Your task to perform on an android device: empty trash in the gmail app Image 0: 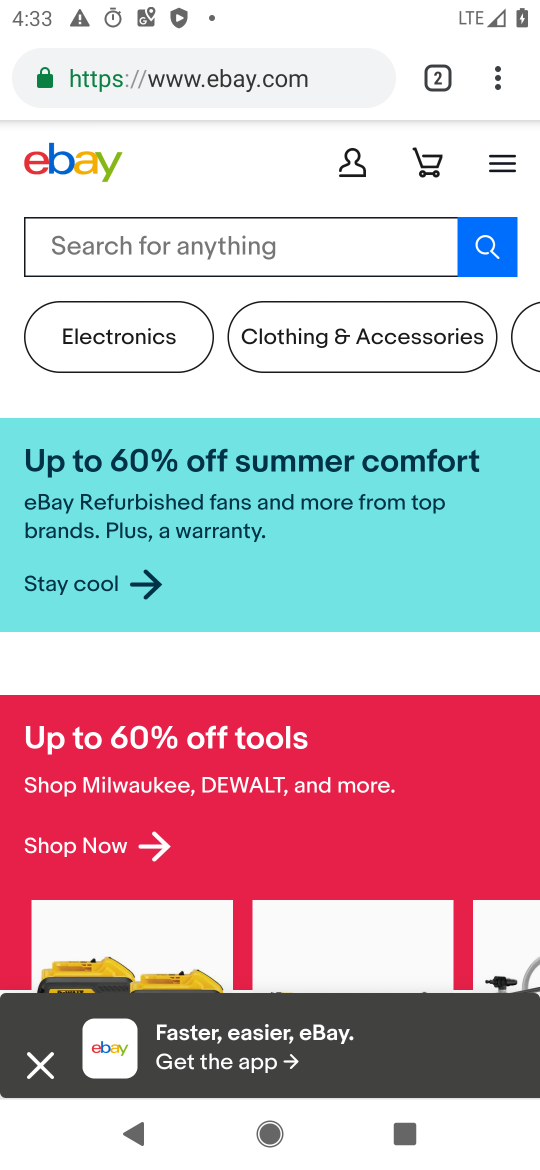
Step 0: press home button
Your task to perform on an android device: empty trash in the gmail app Image 1: 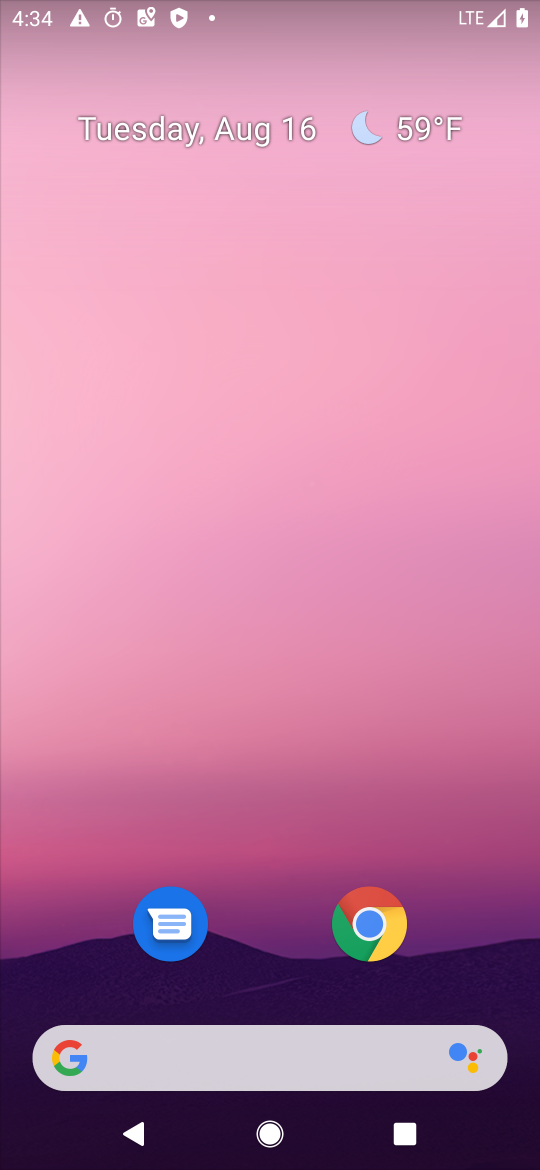
Step 1: drag from (284, 980) to (344, 23)
Your task to perform on an android device: empty trash in the gmail app Image 2: 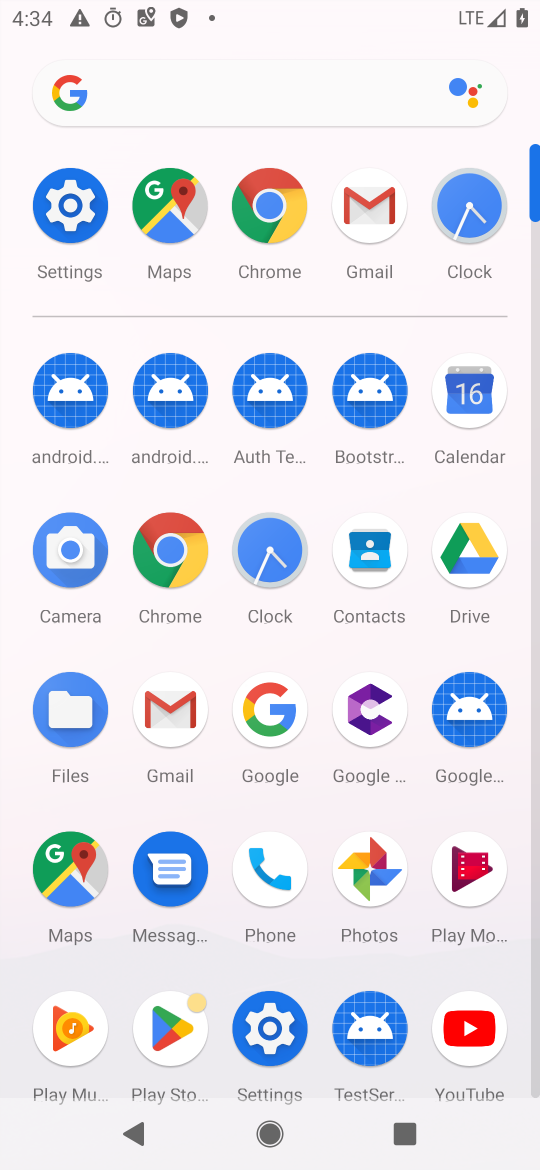
Step 2: click (398, 199)
Your task to perform on an android device: empty trash in the gmail app Image 3: 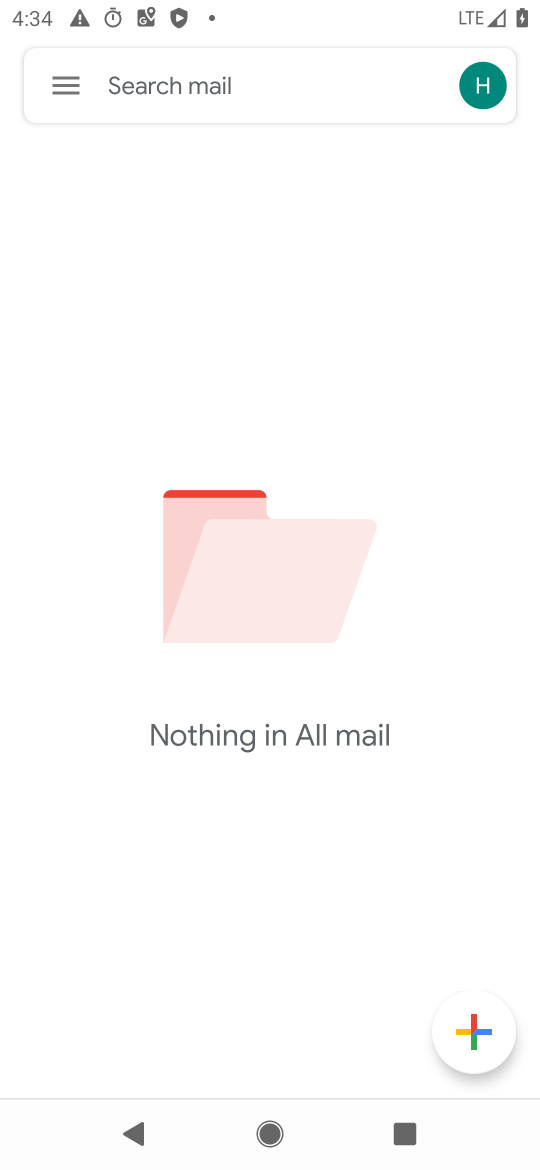
Step 3: click (67, 76)
Your task to perform on an android device: empty trash in the gmail app Image 4: 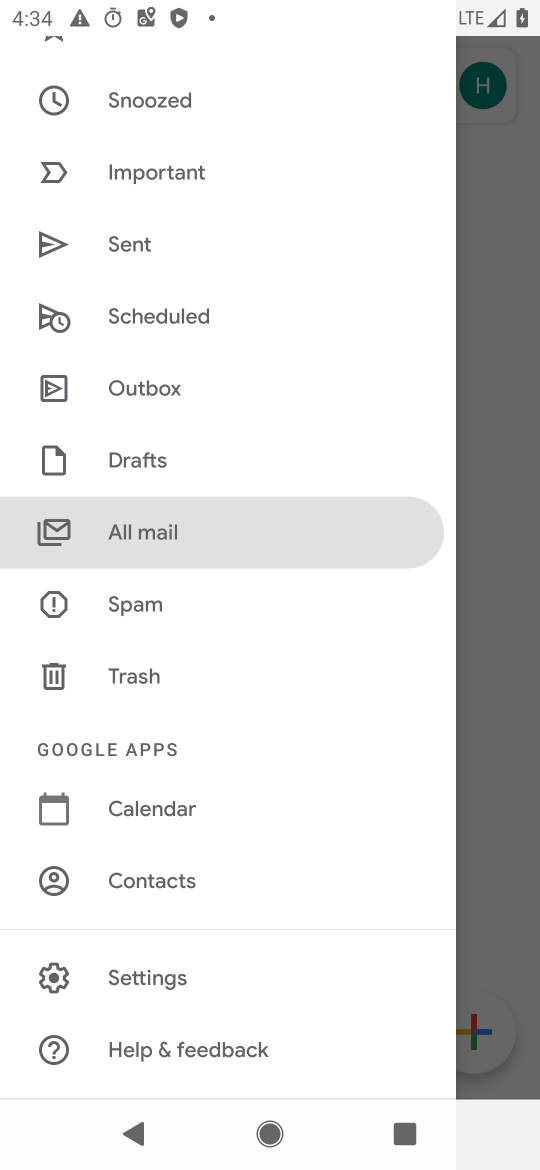
Step 4: click (113, 669)
Your task to perform on an android device: empty trash in the gmail app Image 5: 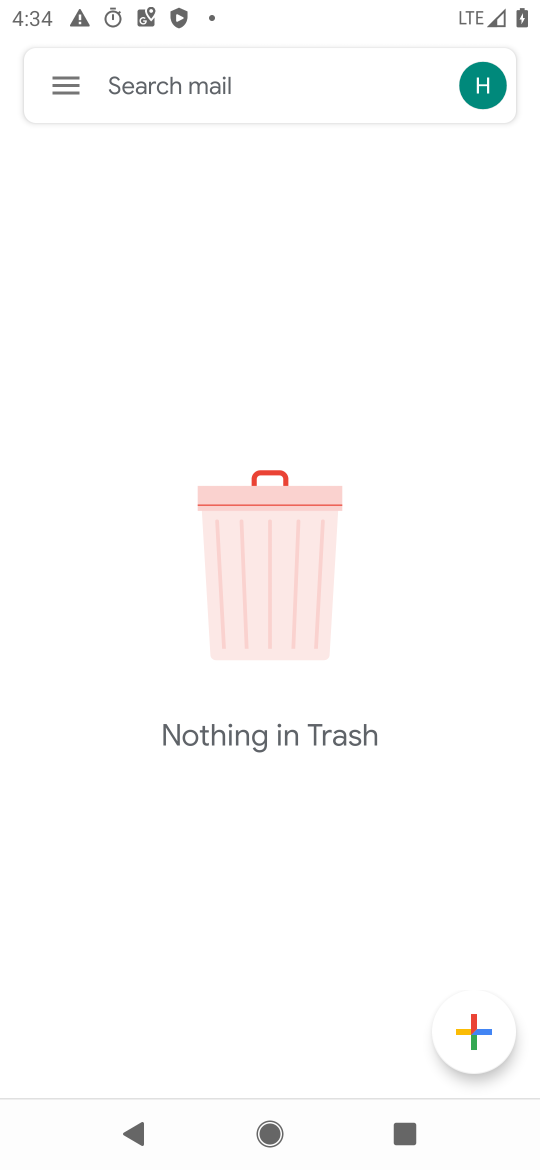
Step 5: task complete